Your task to perform on an android device: see creations saved in the google photos Image 0: 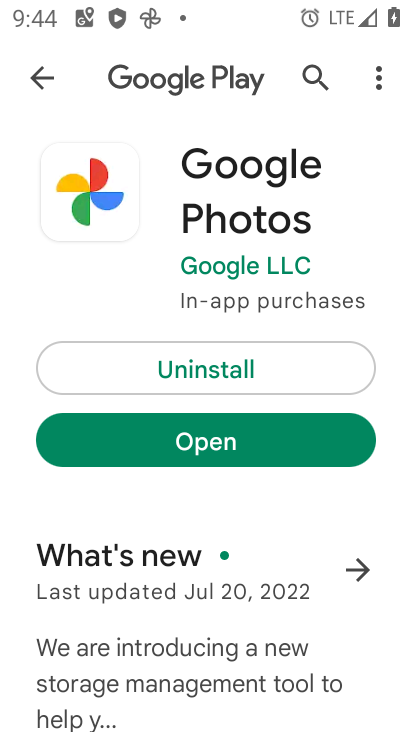
Step 0: press home button
Your task to perform on an android device: see creations saved in the google photos Image 1: 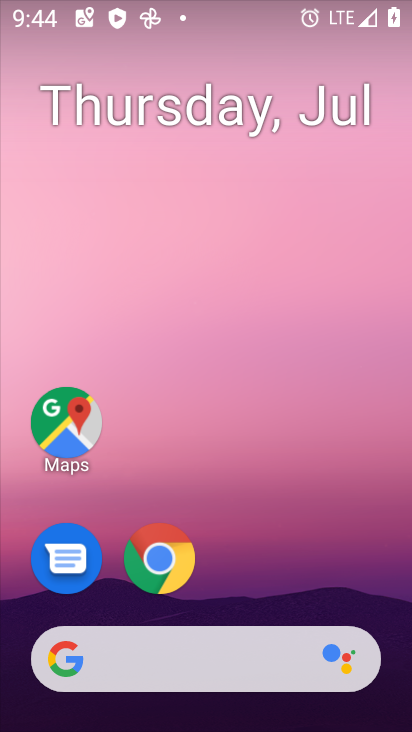
Step 1: drag from (378, 585) to (380, 103)
Your task to perform on an android device: see creations saved in the google photos Image 2: 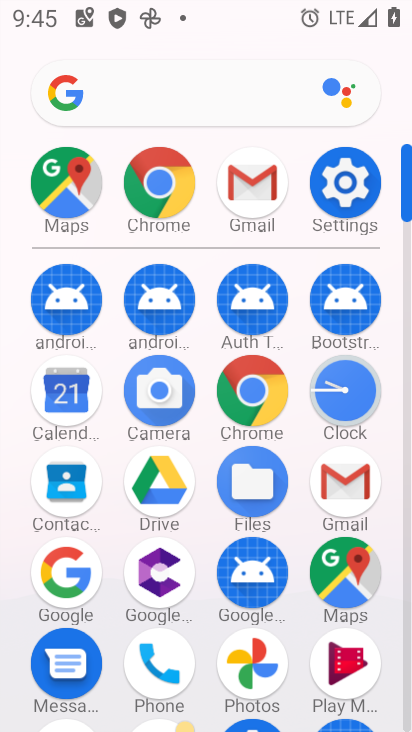
Step 2: click (257, 667)
Your task to perform on an android device: see creations saved in the google photos Image 3: 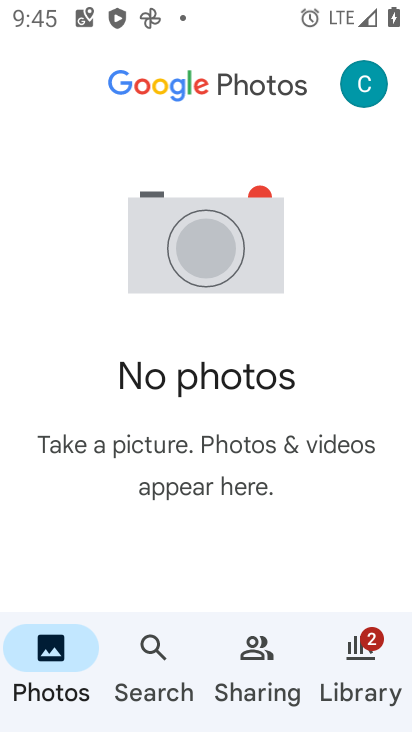
Step 3: click (167, 667)
Your task to perform on an android device: see creations saved in the google photos Image 4: 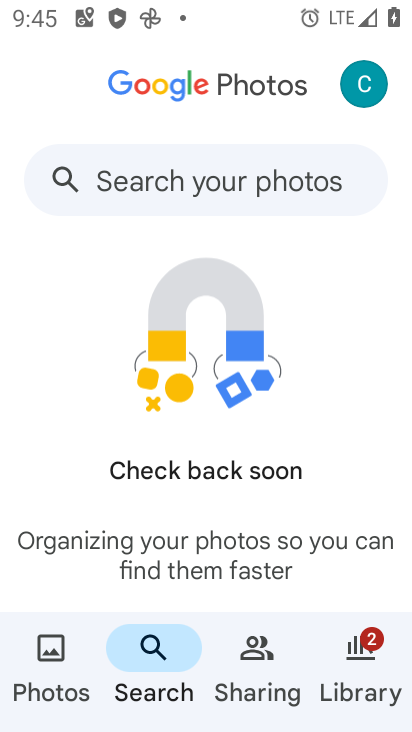
Step 4: drag from (250, 553) to (250, 421)
Your task to perform on an android device: see creations saved in the google photos Image 5: 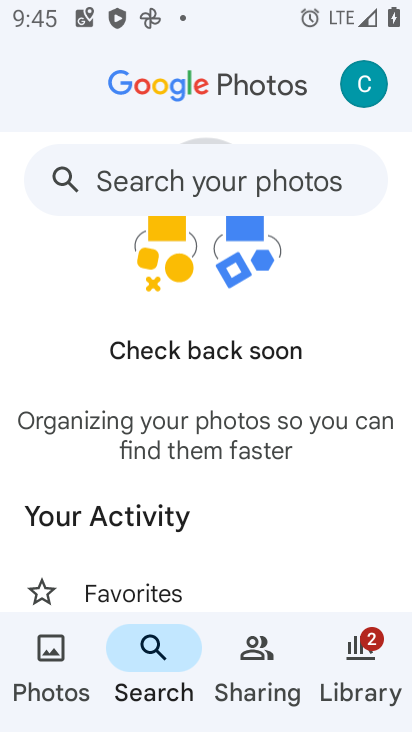
Step 5: drag from (256, 555) to (254, 412)
Your task to perform on an android device: see creations saved in the google photos Image 6: 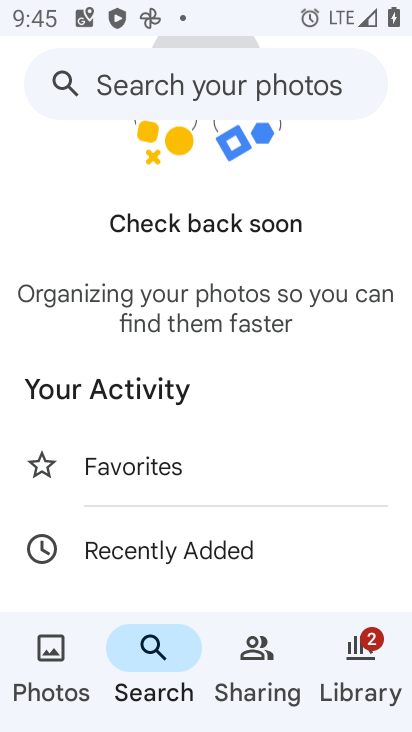
Step 6: drag from (300, 539) to (297, 364)
Your task to perform on an android device: see creations saved in the google photos Image 7: 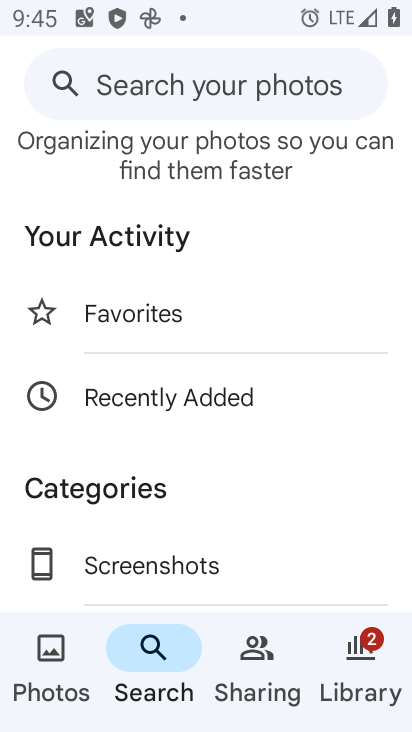
Step 7: drag from (301, 548) to (298, 431)
Your task to perform on an android device: see creations saved in the google photos Image 8: 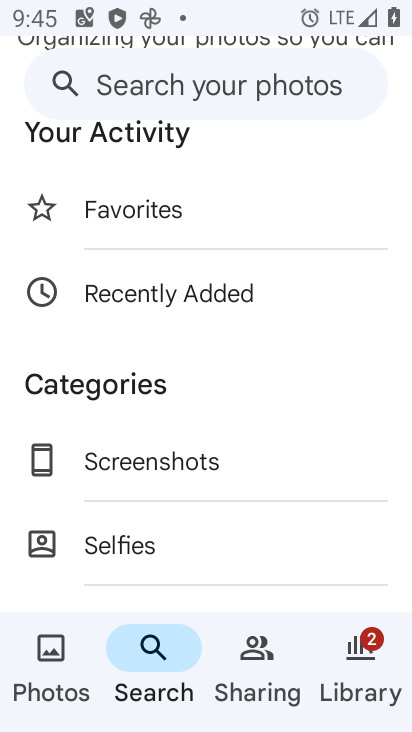
Step 8: drag from (300, 536) to (300, 286)
Your task to perform on an android device: see creations saved in the google photos Image 9: 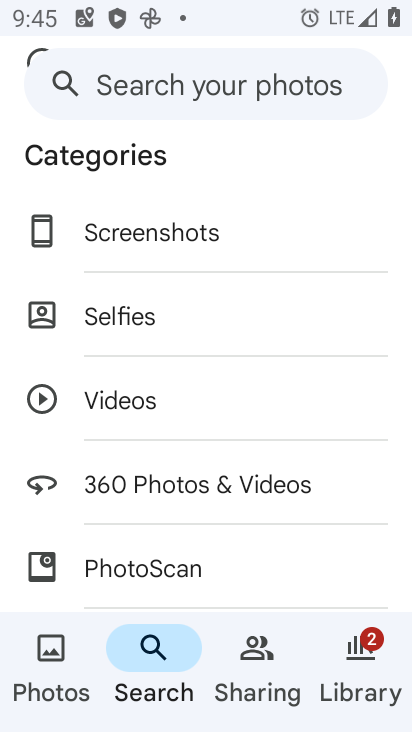
Step 9: drag from (303, 566) to (304, 330)
Your task to perform on an android device: see creations saved in the google photos Image 10: 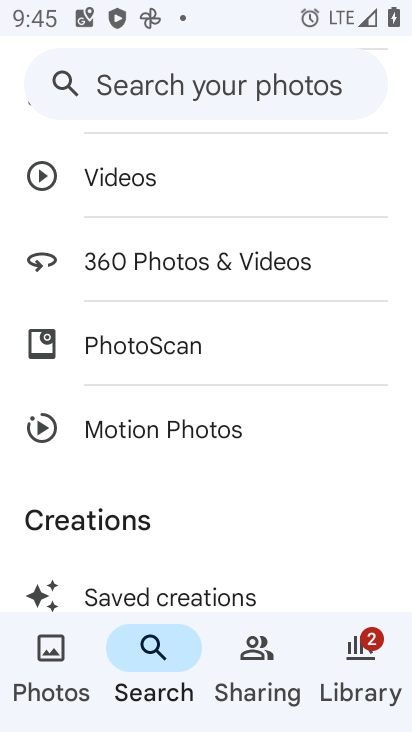
Step 10: drag from (282, 534) to (283, 368)
Your task to perform on an android device: see creations saved in the google photos Image 11: 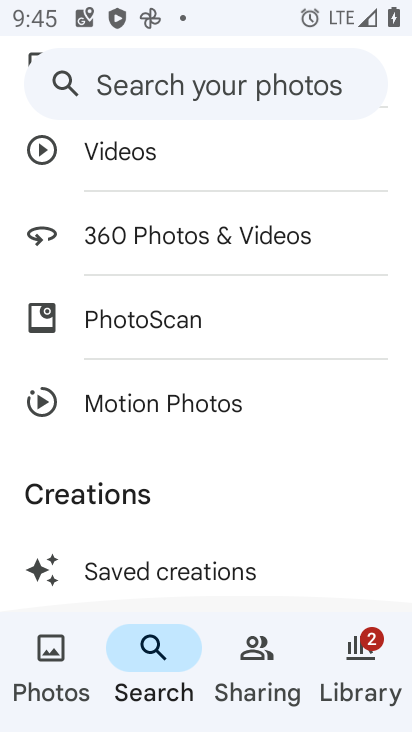
Step 11: click (252, 563)
Your task to perform on an android device: see creations saved in the google photos Image 12: 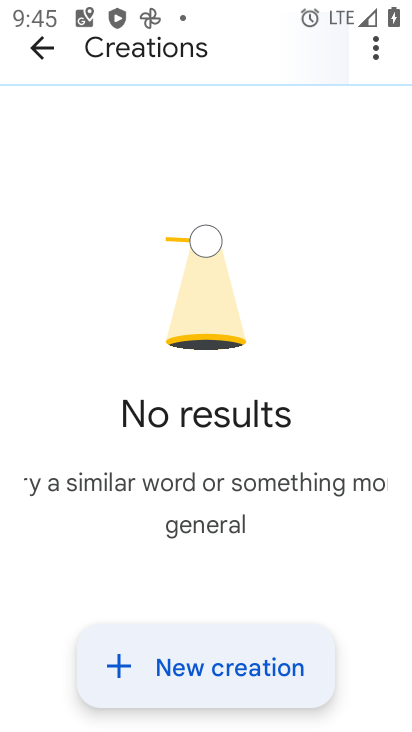
Step 12: task complete